Your task to perform on an android device: Go to Wikipedia Image 0: 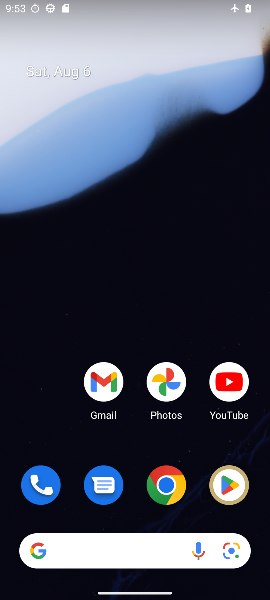
Step 0: drag from (134, 431) to (202, 90)
Your task to perform on an android device: Go to Wikipedia Image 1: 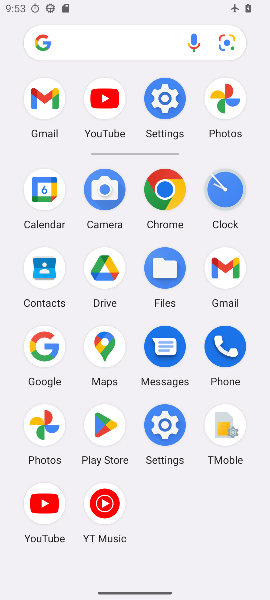
Step 1: click (168, 184)
Your task to perform on an android device: Go to Wikipedia Image 2: 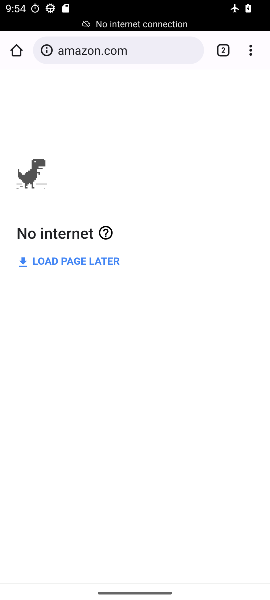
Step 2: click (137, 46)
Your task to perform on an android device: Go to Wikipedia Image 3: 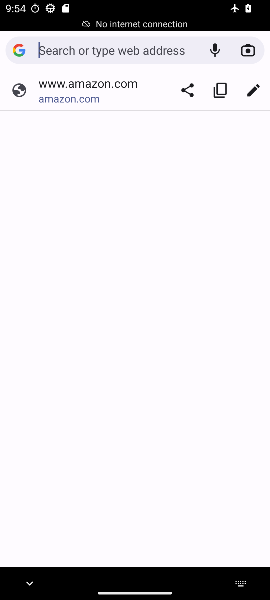
Step 3: type "wikipedia"
Your task to perform on an android device: Go to Wikipedia Image 4: 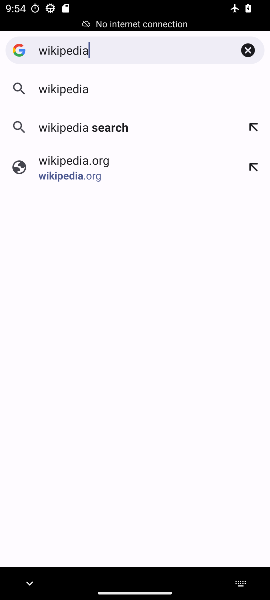
Step 4: click (96, 91)
Your task to perform on an android device: Go to Wikipedia Image 5: 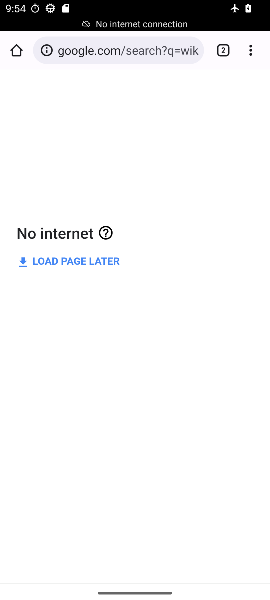
Step 5: task complete